Your task to perform on an android device: open app "Messages" (install if not already installed) and enter user name: "Hersey@inbox.com" and password: "facings" Image 0: 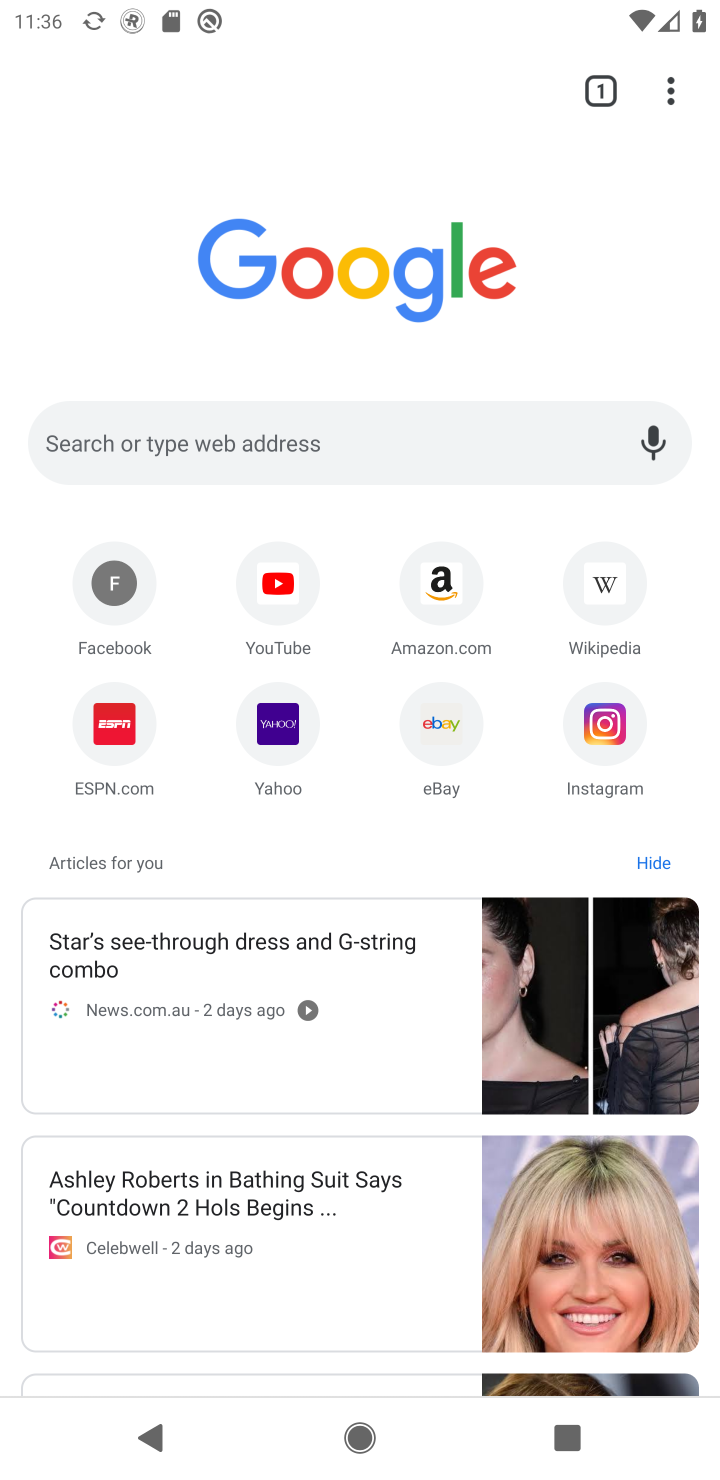
Step 0: press home button
Your task to perform on an android device: open app "Messages" (install if not already installed) and enter user name: "Hersey@inbox.com" and password: "facings" Image 1: 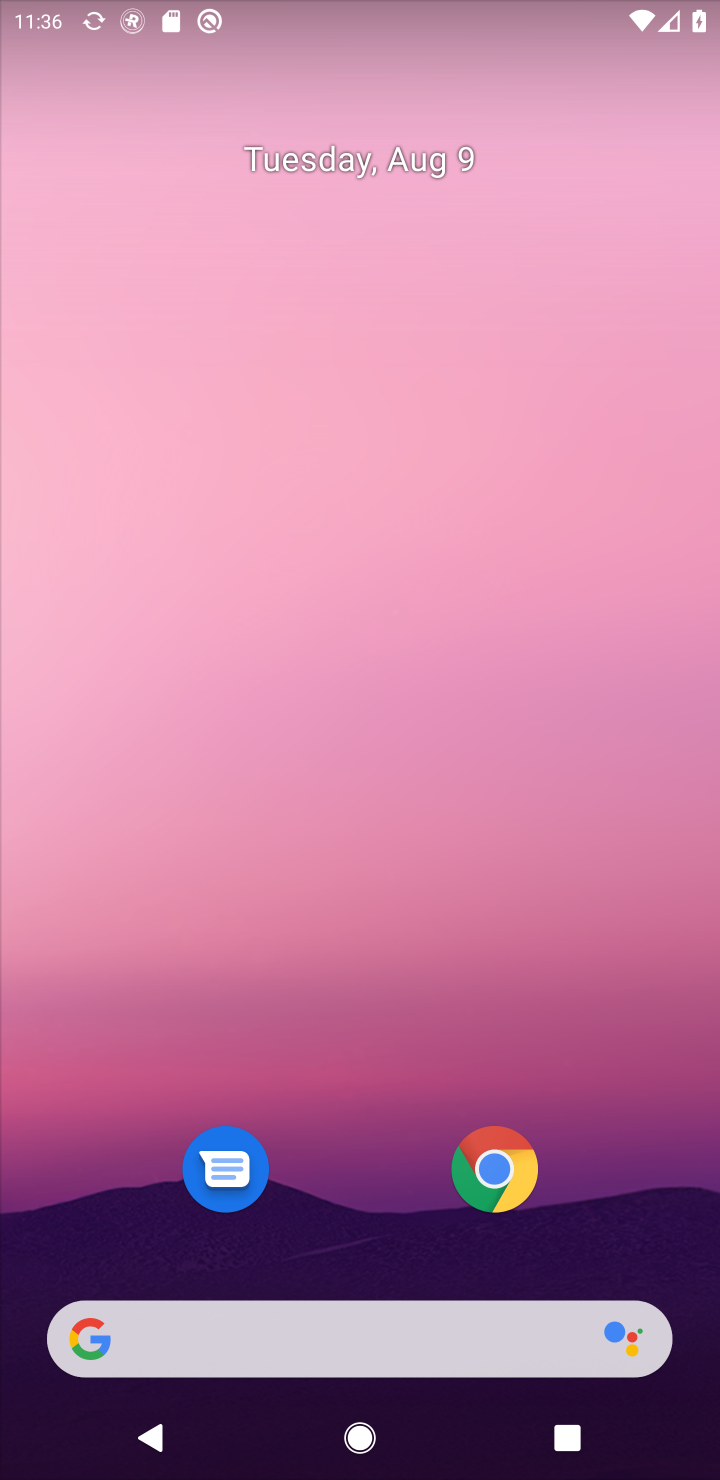
Step 1: drag from (638, 1197) to (682, 98)
Your task to perform on an android device: open app "Messages" (install if not already installed) and enter user name: "Hersey@inbox.com" and password: "facings" Image 2: 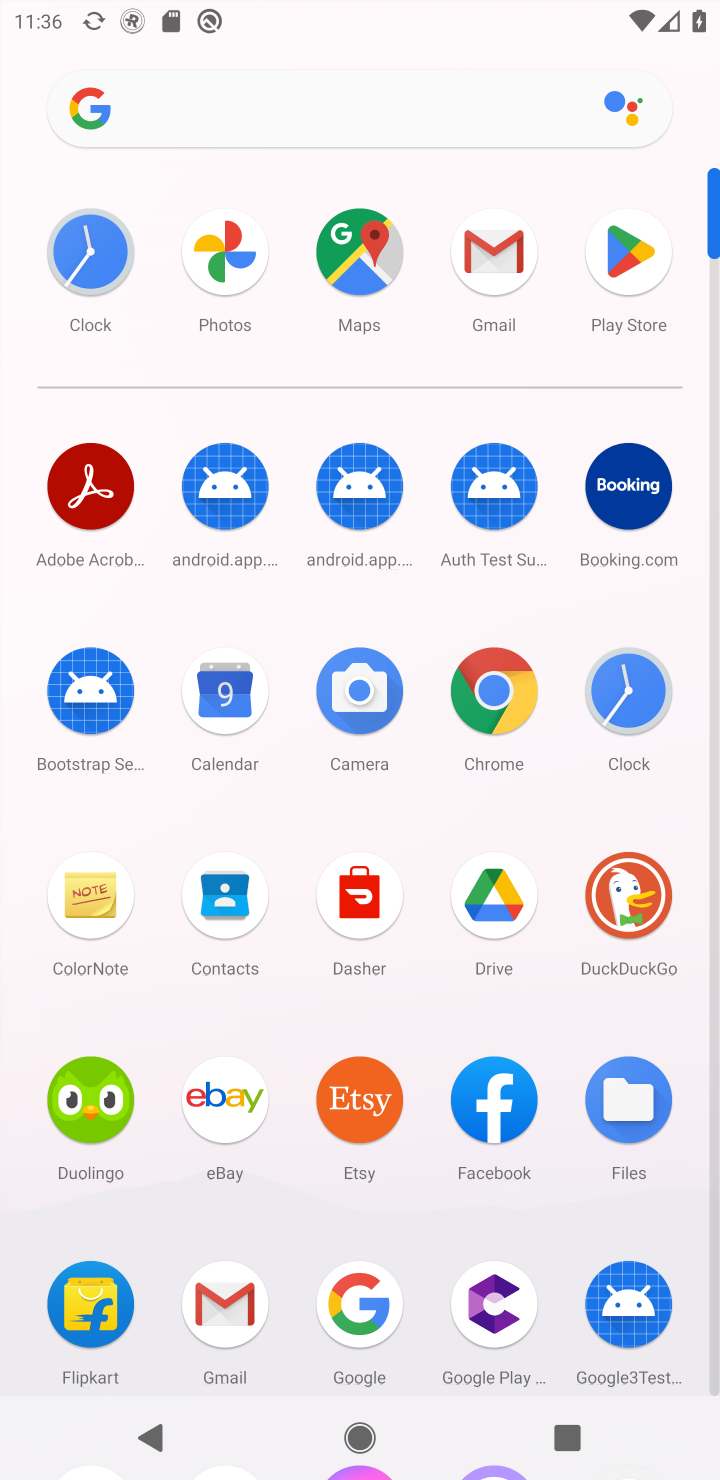
Step 2: click (636, 248)
Your task to perform on an android device: open app "Messages" (install if not already installed) and enter user name: "Hersey@inbox.com" and password: "facings" Image 3: 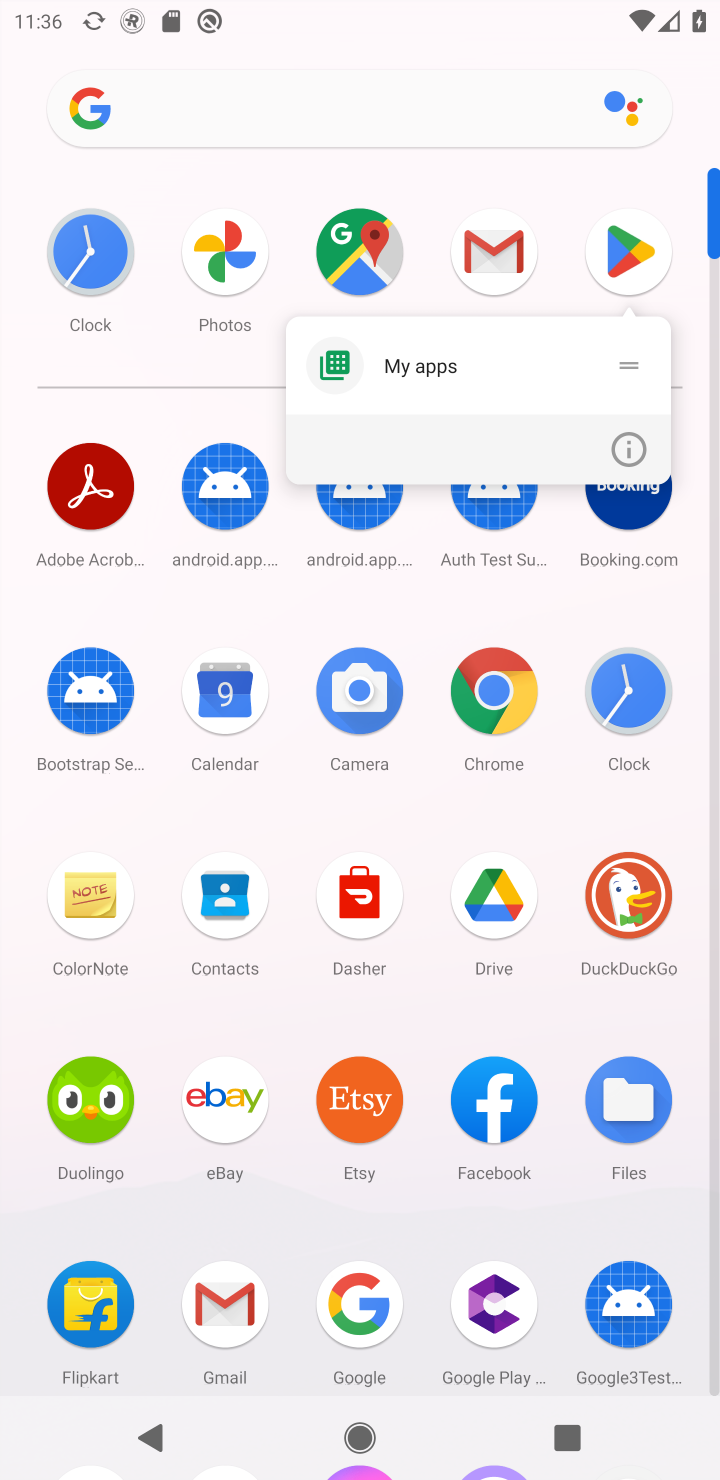
Step 3: click (646, 235)
Your task to perform on an android device: open app "Messages" (install if not already installed) and enter user name: "Hersey@inbox.com" and password: "facings" Image 4: 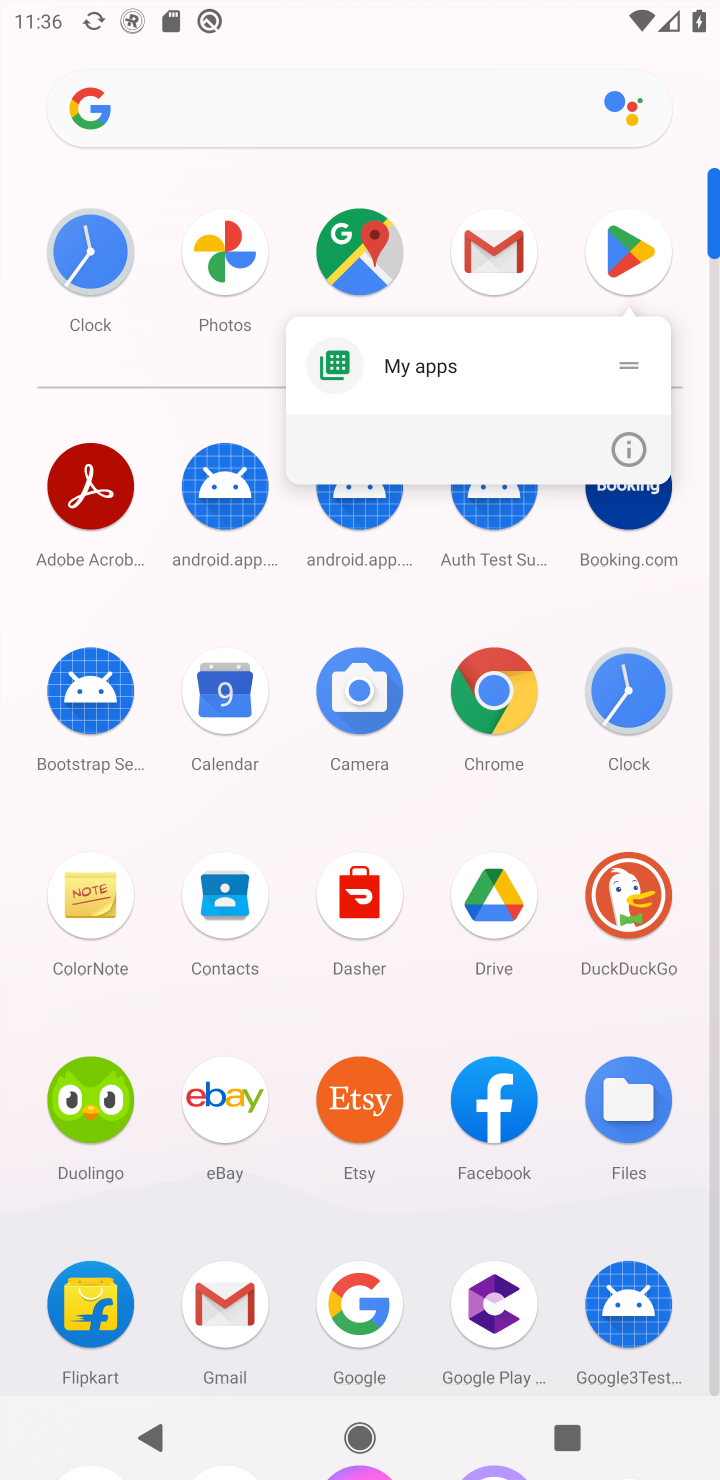
Step 4: click (632, 253)
Your task to perform on an android device: open app "Messages" (install if not already installed) and enter user name: "Hersey@inbox.com" and password: "facings" Image 5: 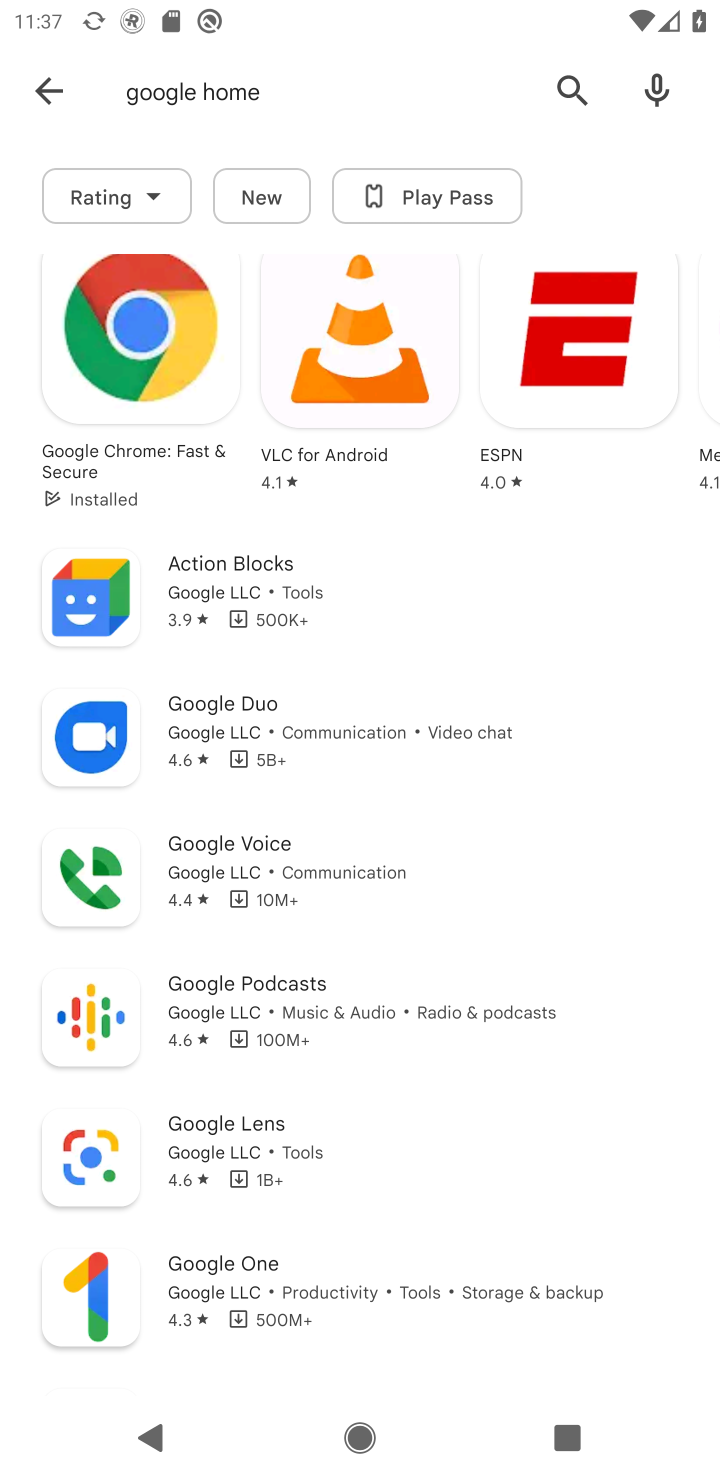
Step 5: click (568, 76)
Your task to perform on an android device: open app "Messages" (install if not already installed) and enter user name: "Hersey@inbox.com" and password: "facings" Image 6: 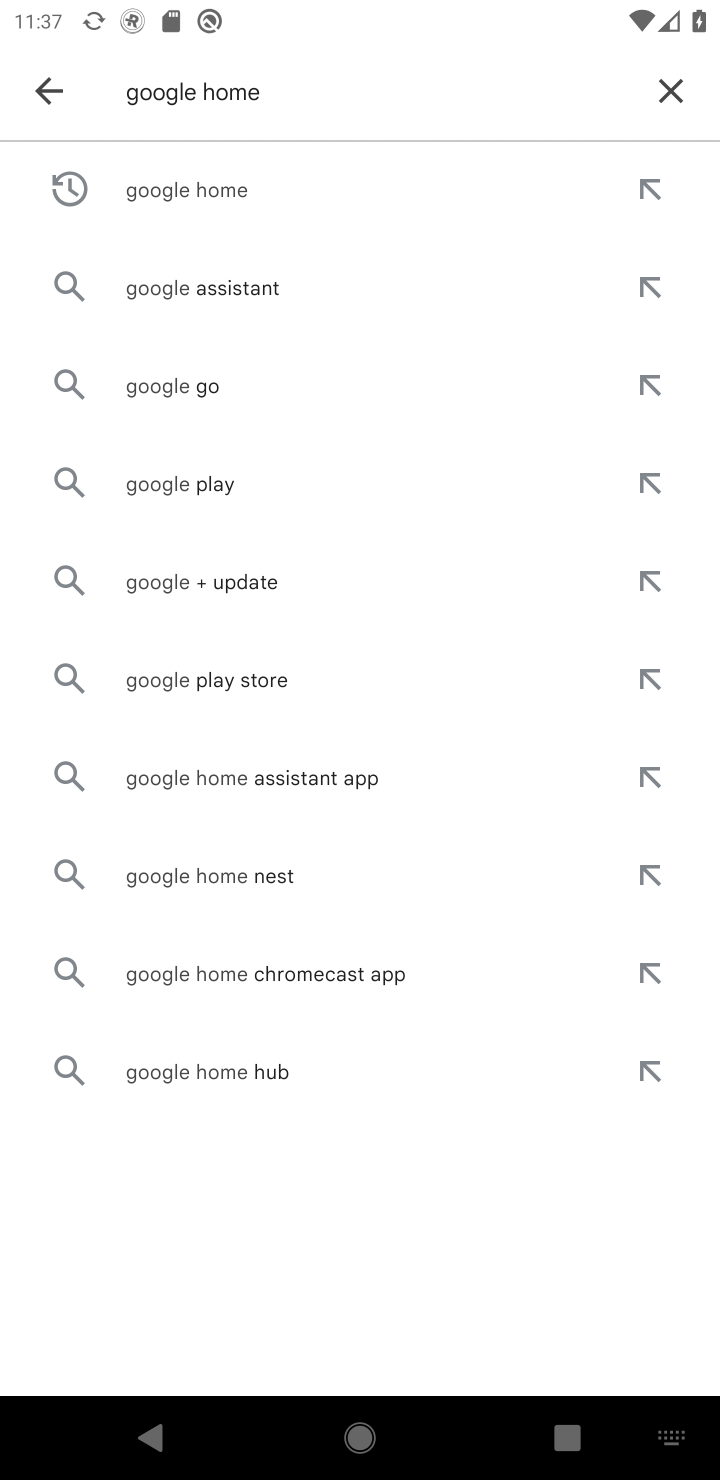
Step 6: click (669, 89)
Your task to perform on an android device: open app "Messages" (install if not already installed) and enter user name: "Hersey@inbox.com" and password: "facings" Image 7: 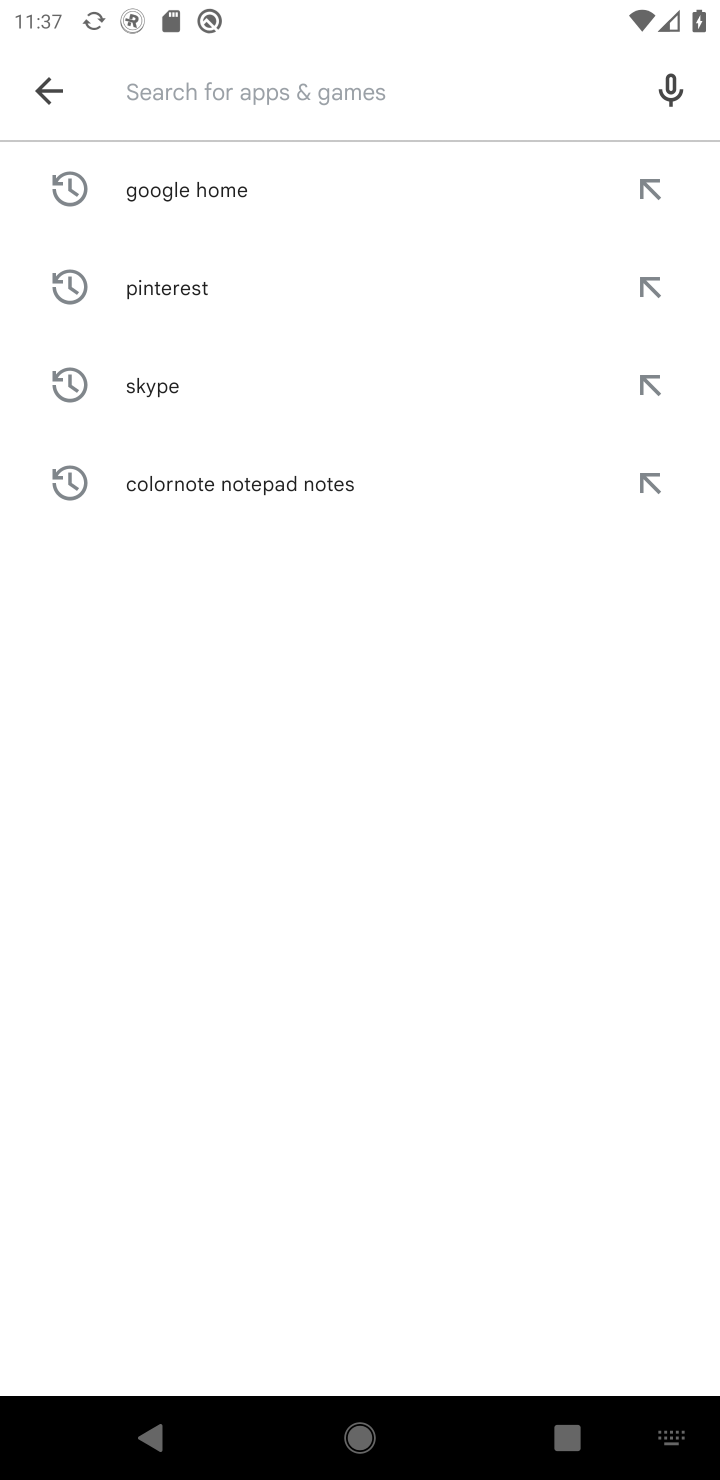
Step 7: type "message "
Your task to perform on an android device: open app "Messages" (install if not already installed) and enter user name: "Hersey@inbox.com" and password: "facings" Image 8: 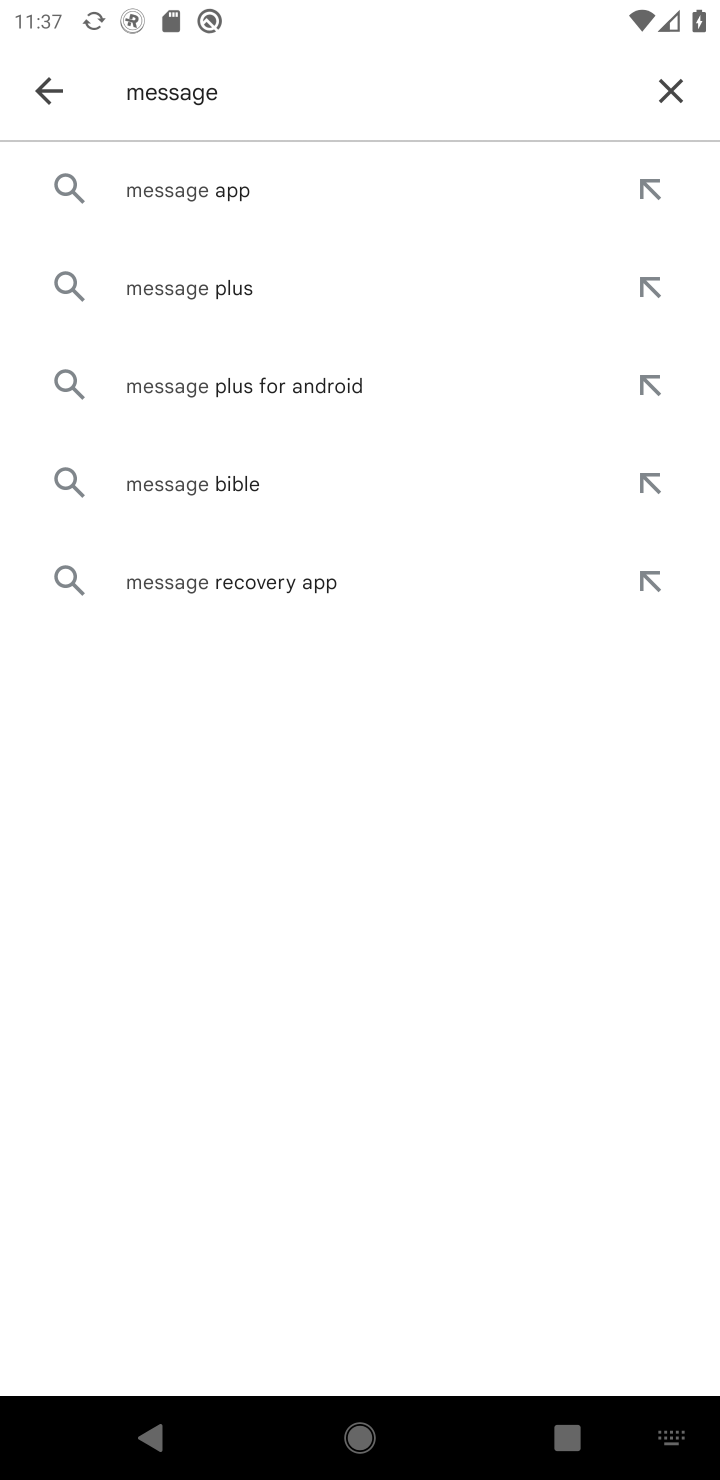
Step 8: click (247, 184)
Your task to perform on an android device: open app "Messages" (install if not already installed) and enter user name: "Hersey@inbox.com" and password: "facings" Image 9: 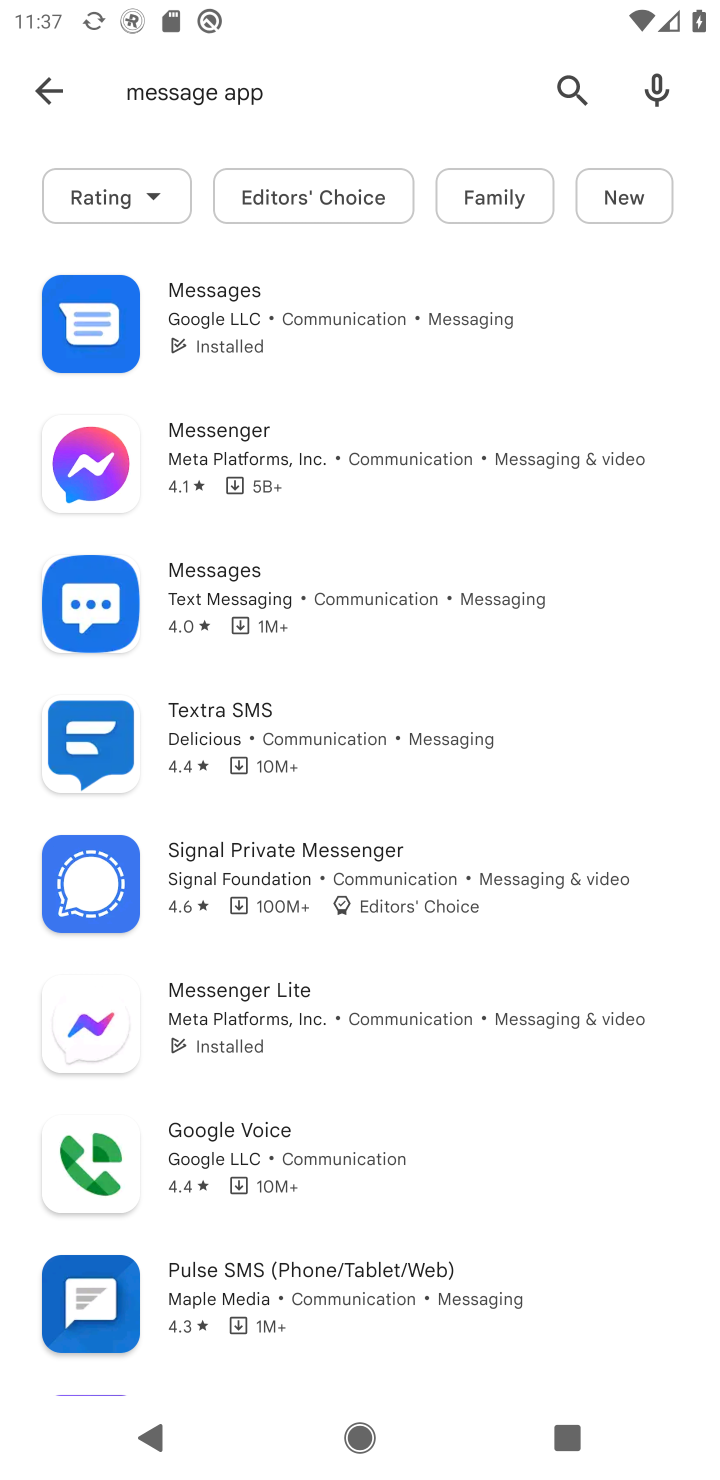
Step 9: task complete